Your task to perform on an android device: make emails show in primary in the gmail app Image 0: 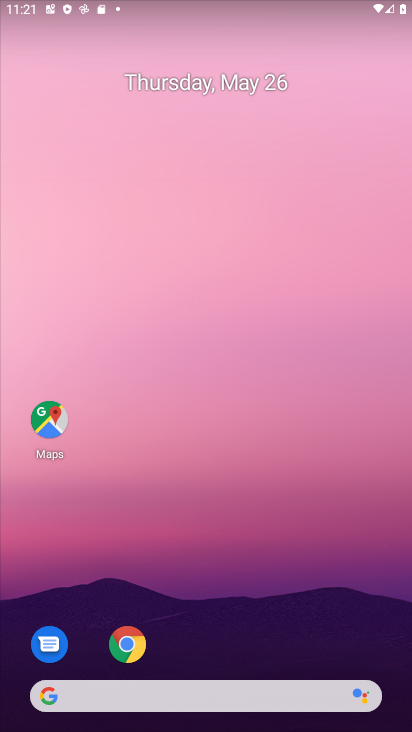
Step 0: drag from (375, 528) to (291, 45)
Your task to perform on an android device: make emails show in primary in the gmail app Image 1: 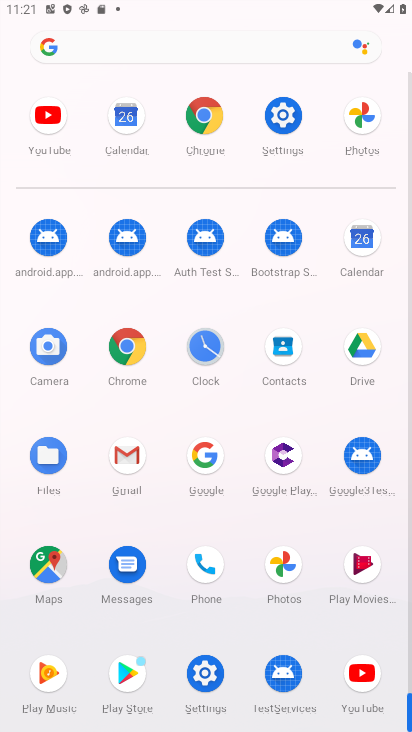
Step 1: click (138, 465)
Your task to perform on an android device: make emails show in primary in the gmail app Image 2: 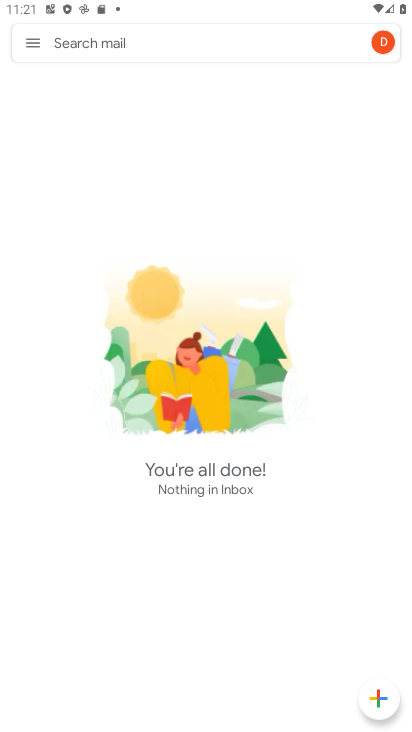
Step 2: task complete